Your task to perform on an android device: Go to Google Image 0: 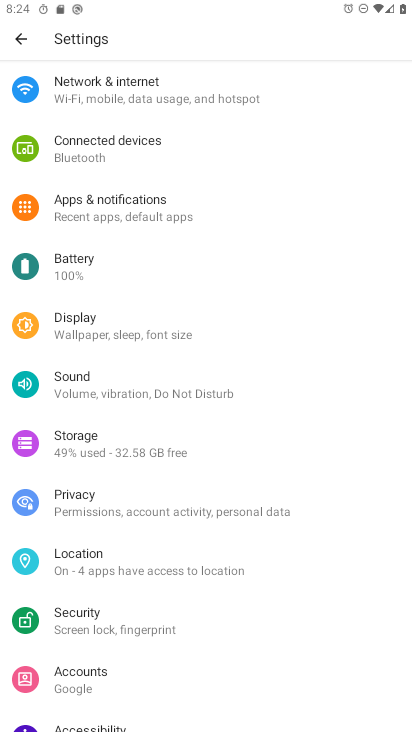
Step 0: press home button
Your task to perform on an android device: Go to Google Image 1: 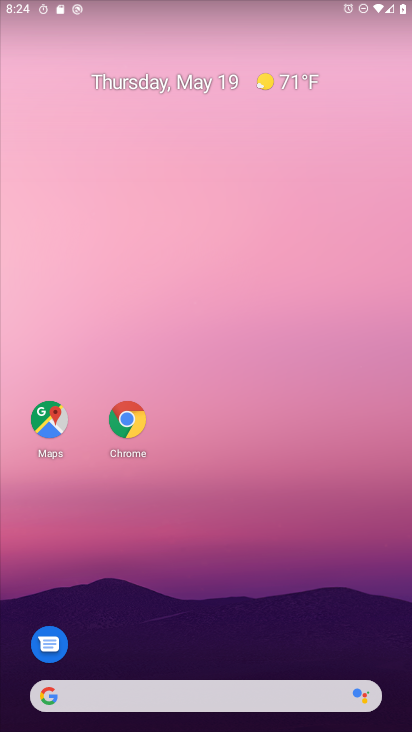
Step 1: drag from (147, 678) to (209, 357)
Your task to perform on an android device: Go to Google Image 2: 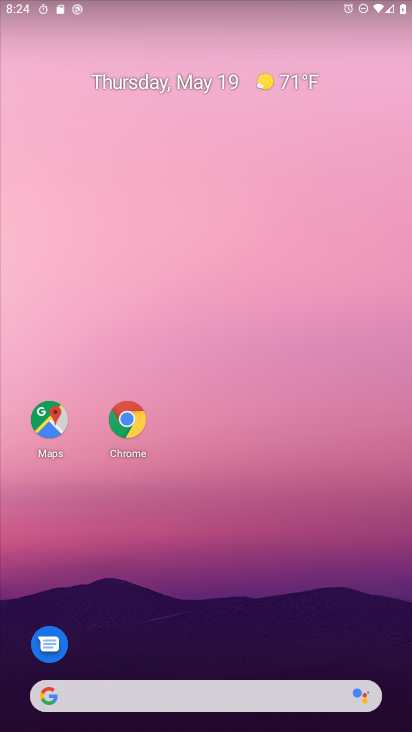
Step 2: drag from (201, 594) to (252, 351)
Your task to perform on an android device: Go to Google Image 3: 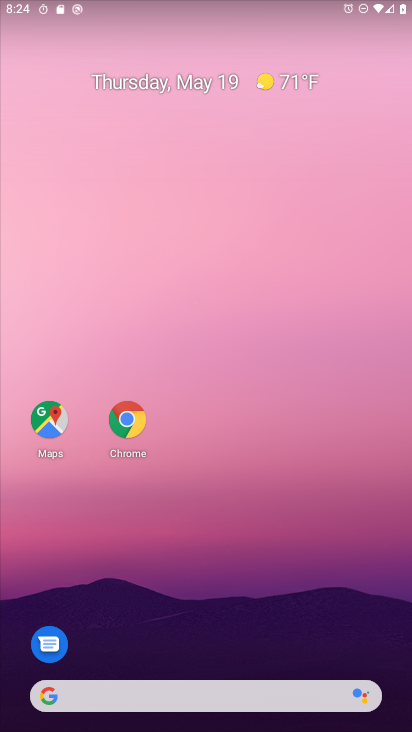
Step 3: drag from (275, 668) to (328, 284)
Your task to perform on an android device: Go to Google Image 4: 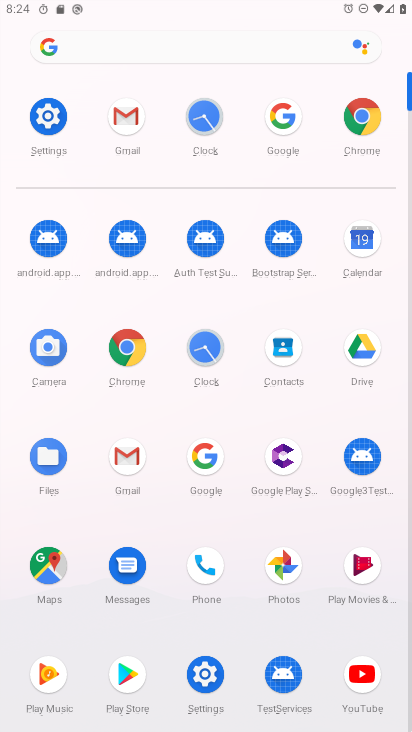
Step 4: click (200, 463)
Your task to perform on an android device: Go to Google Image 5: 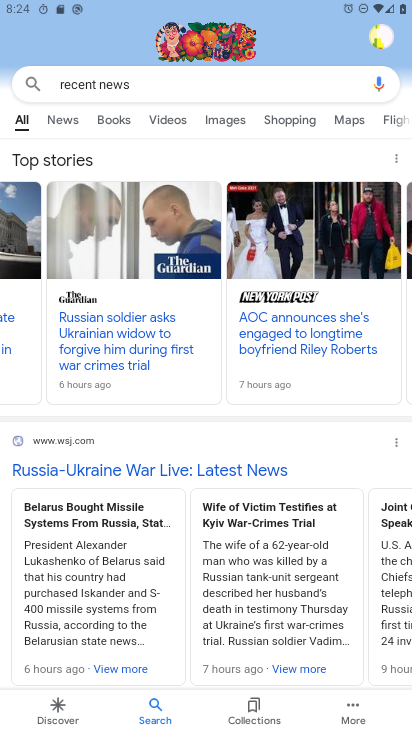
Step 5: task complete